Your task to perform on an android device: Play the last video I watched on Youtube Image 0: 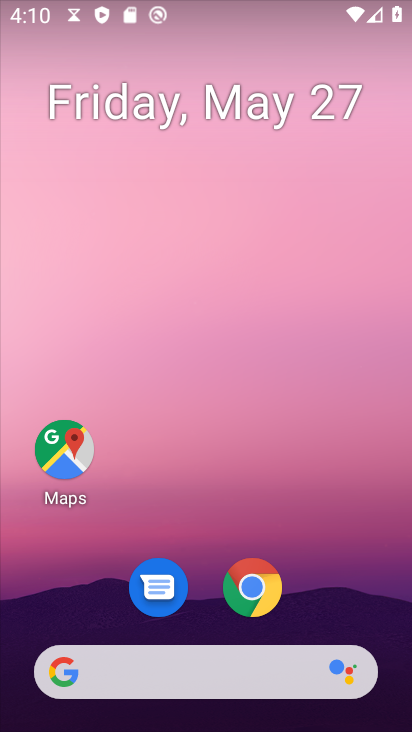
Step 0: drag from (312, 543) to (237, 1)
Your task to perform on an android device: Play the last video I watched on Youtube Image 1: 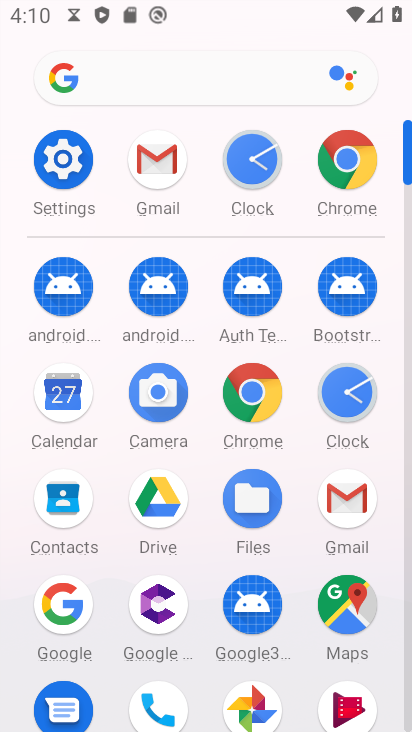
Step 1: drag from (18, 575) to (8, 248)
Your task to perform on an android device: Play the last video I watched on Youtube Image 2: 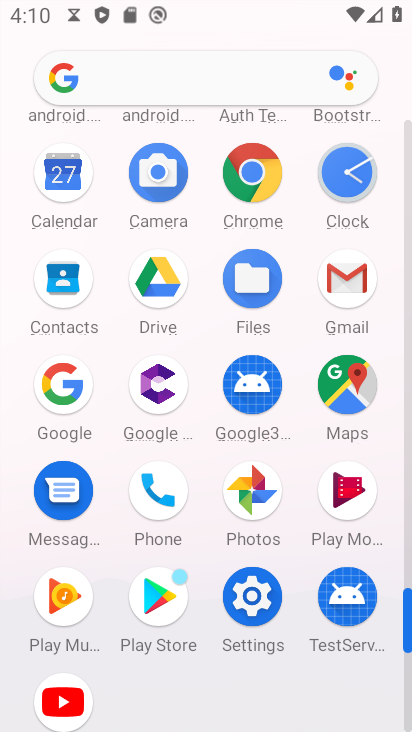
Step 2: click (62, 691)
Your task to perform on an android device: Play the last video I watched on Youtube Image 3: 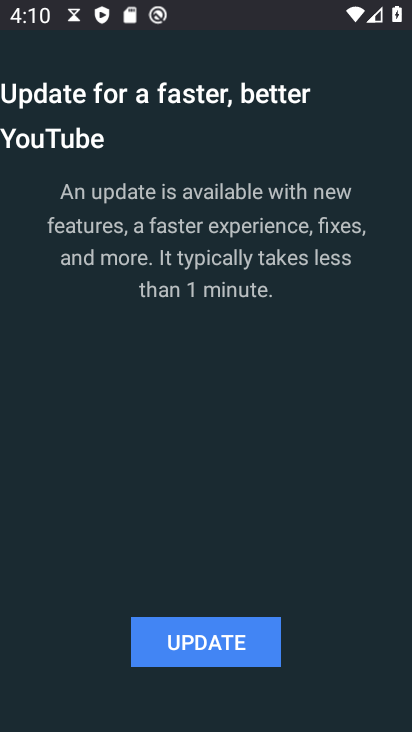
Step 3: click (194, 647)
Your task to perform on an android device: Play the last video I watched on Youtube Image 4: 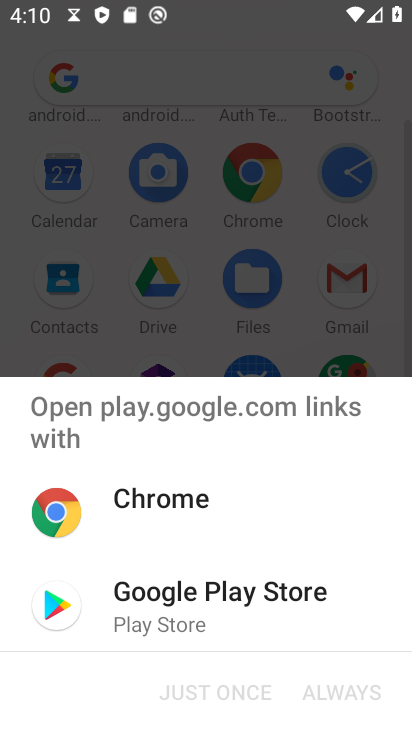
Step 4: click (203, 615)
Your task to perform on an android device: Play the last video I watched on Youtube Image 5: 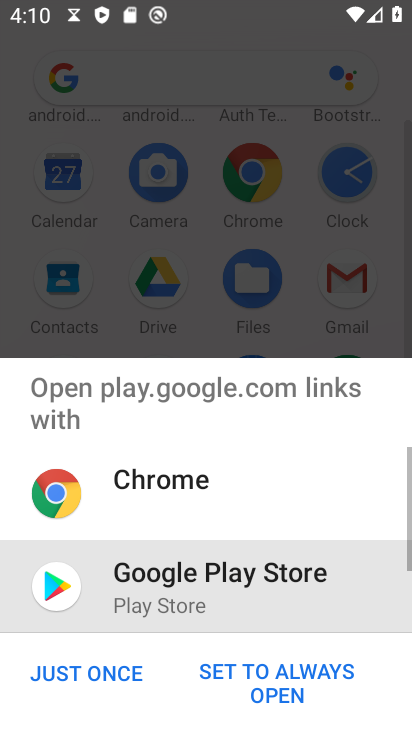
Step 5: click (72, 676)
Your task to perform on an android device: Play the last video I watched on Youtube Image 6: 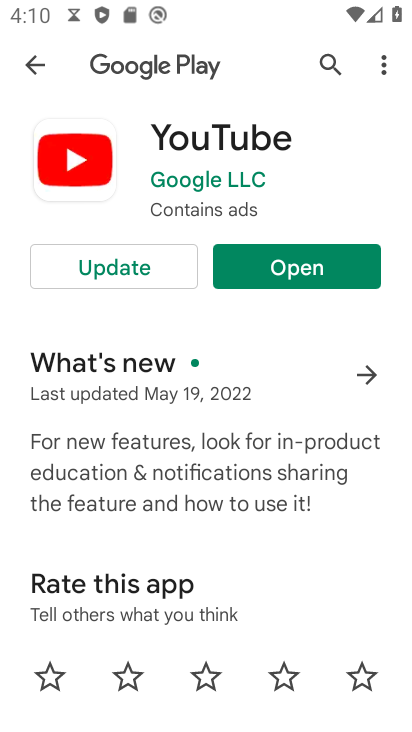
Step 6: click (136, 271)
Your task to perform on an android device: Play the last video I watched on Youtube Image 7: 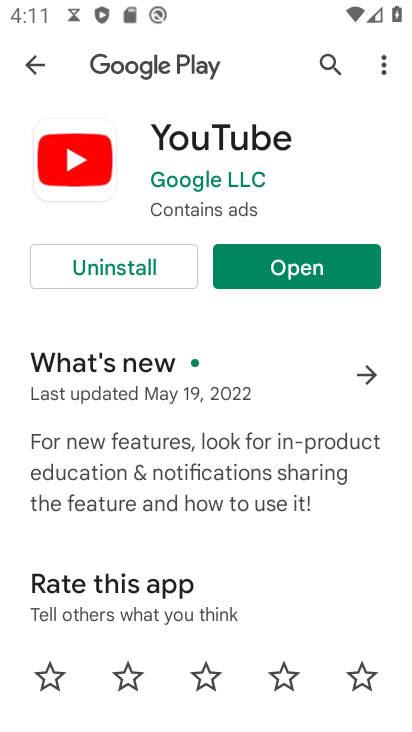
Step 7: click (283, 269)
Your task to perform on an android device: Play the last video I watched on Youtube Image 8: 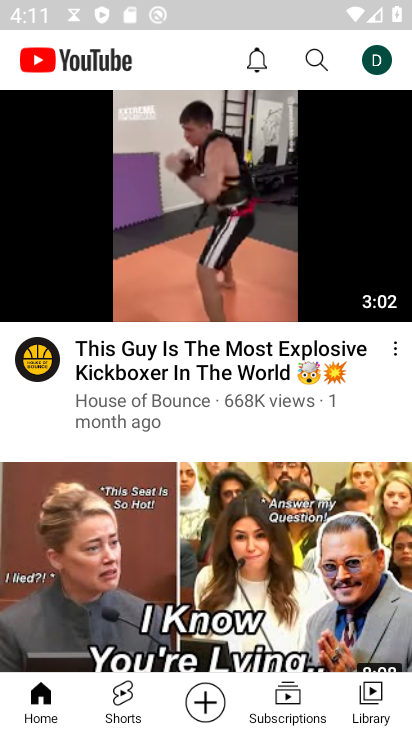
Step 8: click (363, 708)
Your task to perform on an android device: Play the last video I watched on Youtube Image 9: 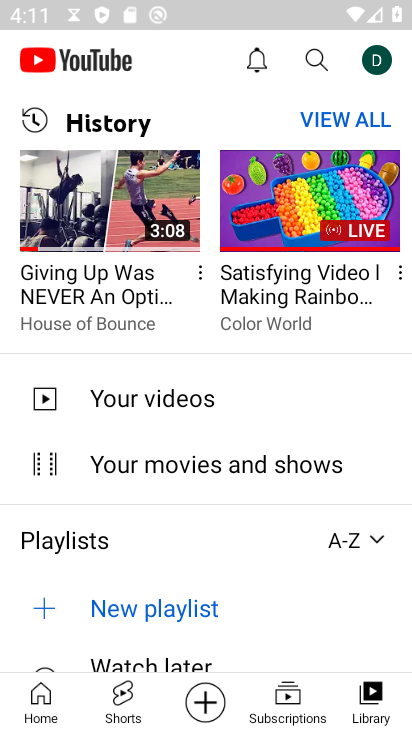
Step 9: click (105, 194)
Your task to perform on an android device: Play the last video I watched on Youtube Image 10: 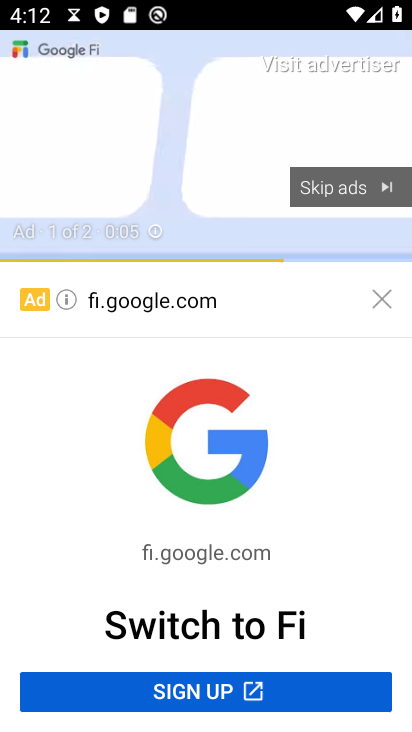
Step 10: click (333, 181)
Your task to perform on an android device: Play the last video I watched on Youtube Image 11: 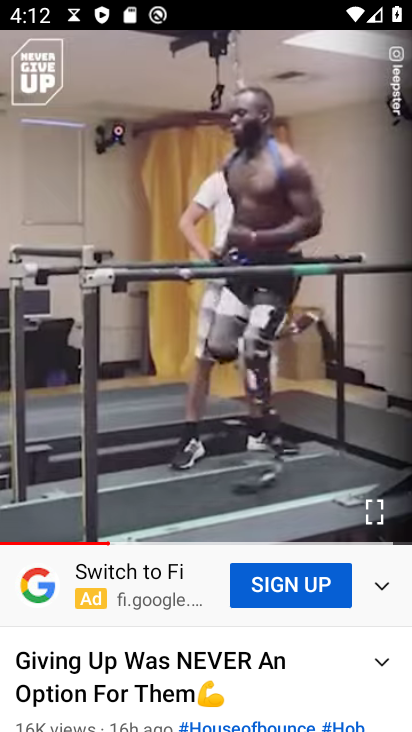
Step 11: task complete